Your task to perform on an android device: open wifi settings Image 0: 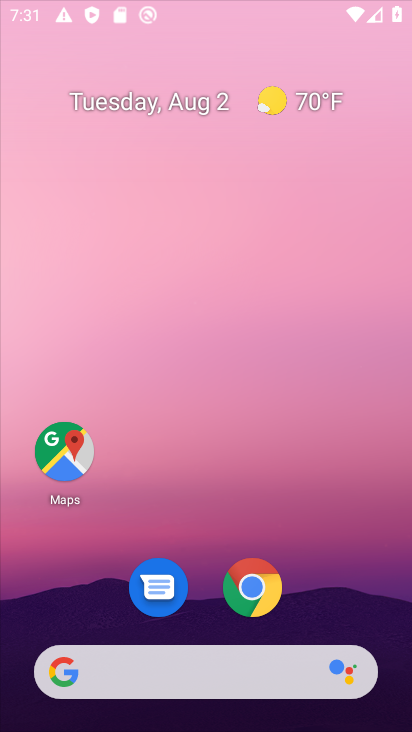
Step 0: press home button
Your task to perform on an android device: open wifi settings Image 1: 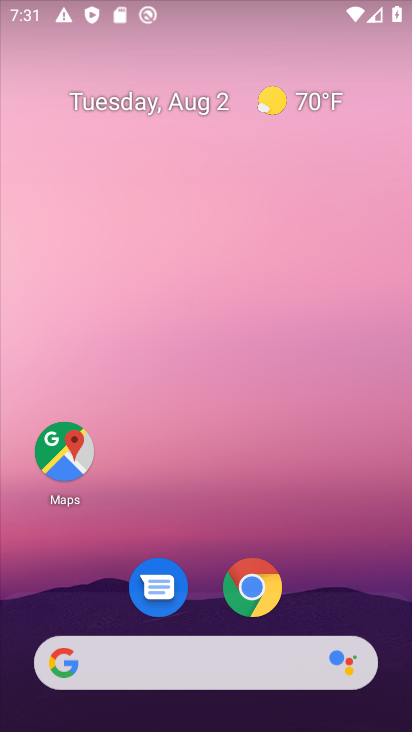
Step 1: drag from (281, 564) to (200, 182)
Your task to perform on an android device: open wifi settings Image 2: 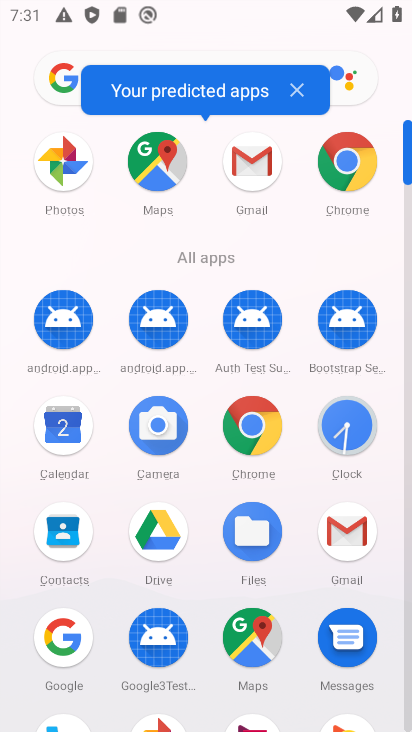
Step 2: drag from (109, 485) to (113, 260)
Your task to perform on an android device: open wifi settings Image 3: 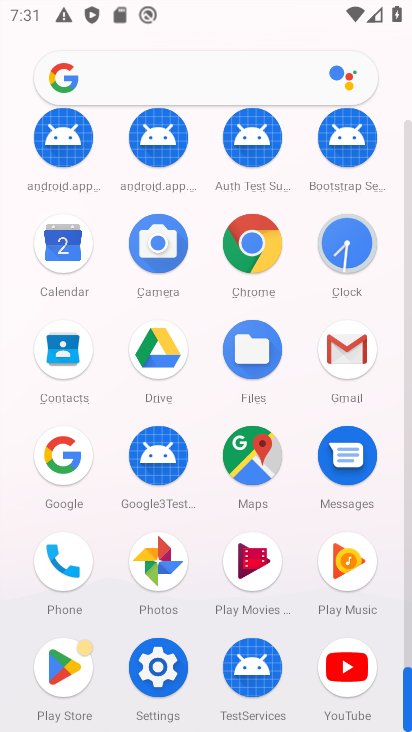
Step 3: drag from (148, 666) to (314, 633)
Your task to perform on an android device: open wifi settings Image 4: 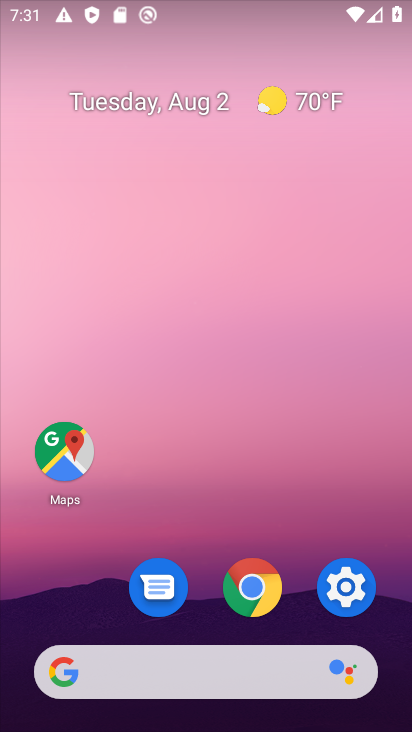
Step 4: click (346, 598)
Your task to perform on an android device: open wifi settings Image 5: 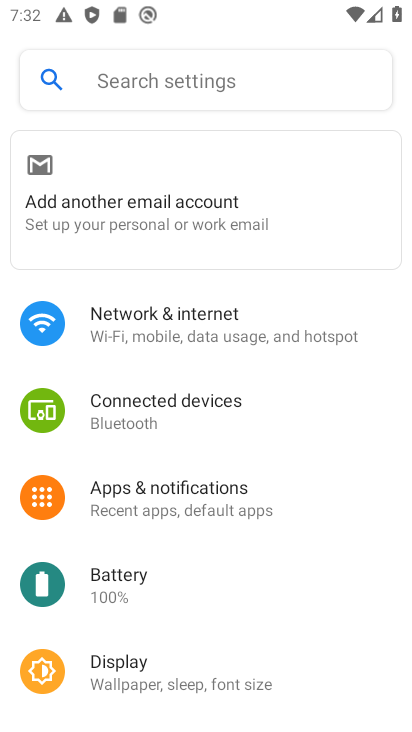
Step 5: click (198, 323)
Your task to perform on an android device: open wifi settings Image 6: 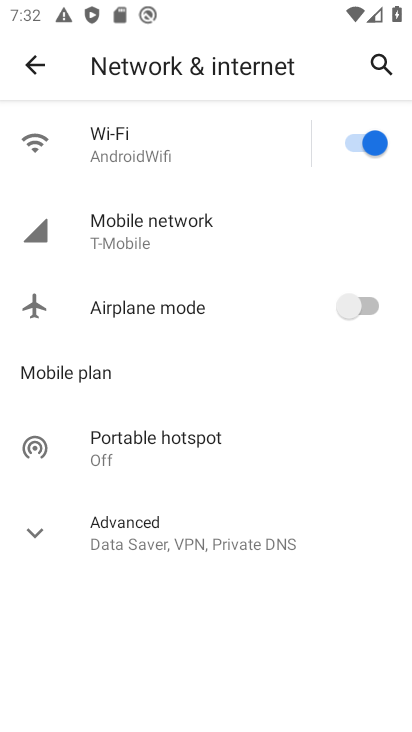
Step 6: click (256, 170)
Your task to perform on an android device: open wifi settings Image 7: 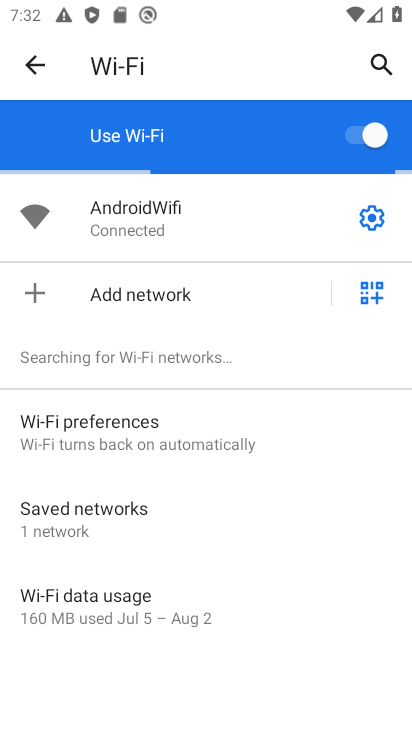
Step 7: task complete